Your task to perform on an android device: Go to settings Image 0: 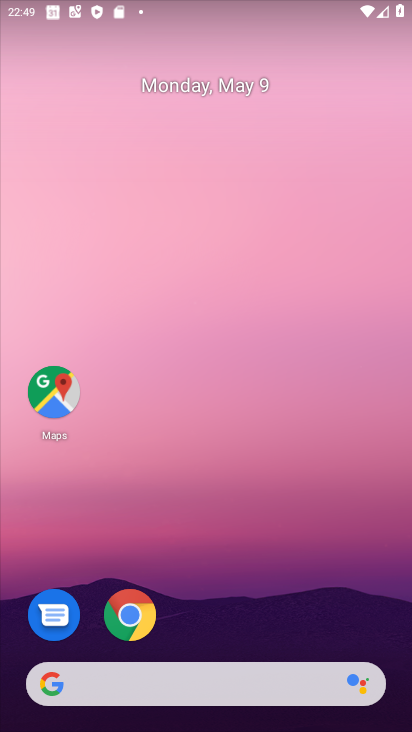
Step 0: drag from (185, 630) to (217, 283)
Your task to perform on an android device: Go to settings Image 1: 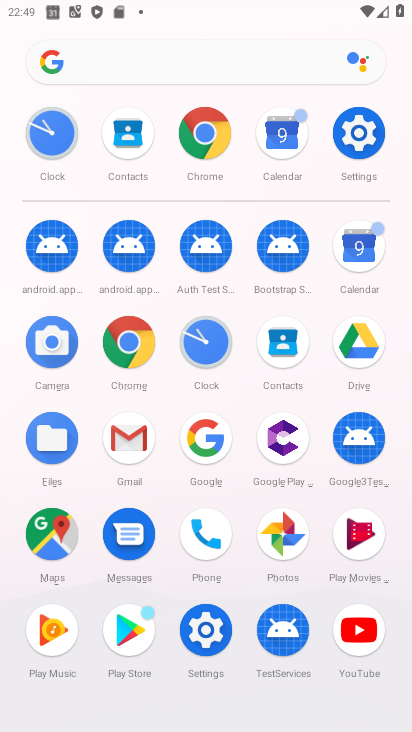
Step 1: click (369, 125)
Your task to perform on an android device: Go to settings Image 2: 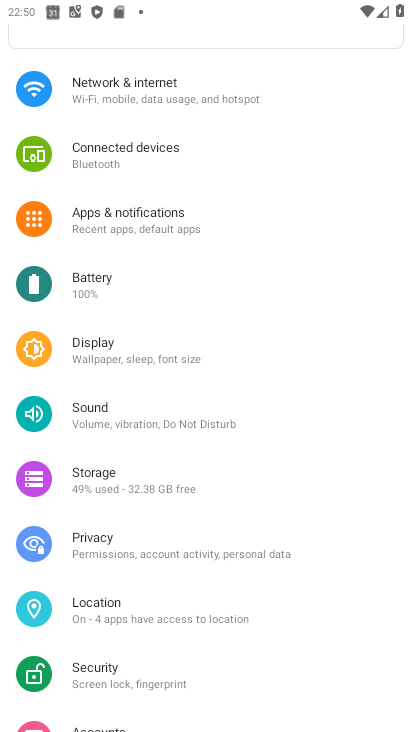
Step 2: task complete